Your task to perform on an android device: Open Chrome and go to the settings page Image 0: 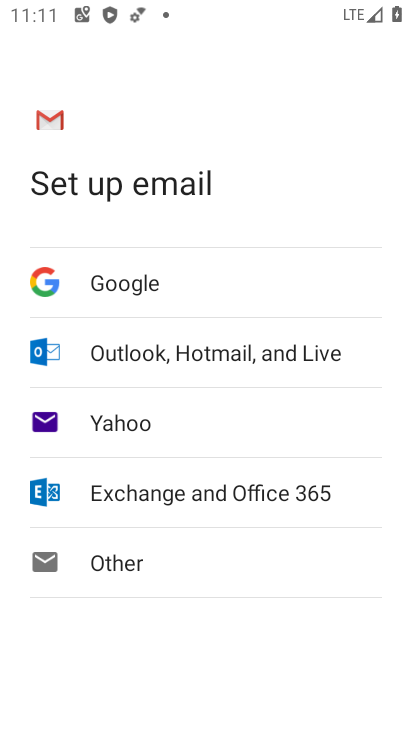
Step 0: press home button
Your task to perform on an android device: Open Chrome and go to the settings page Image 1: 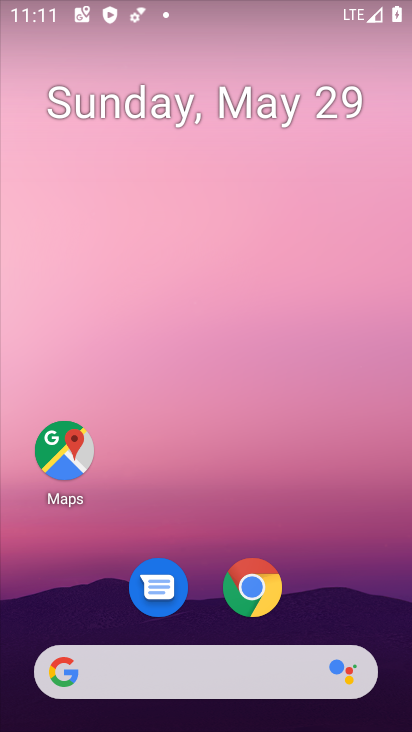
Step 1: click (252, 586)
Your task to perform on an android device: Open Chrome and go to the settings page Image 2: 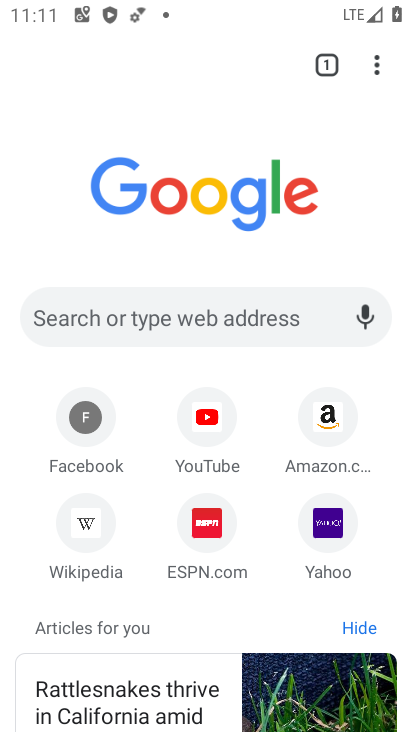
Step 2: task complete